Your task to perform on an android device: Go to battery settings Image 0: 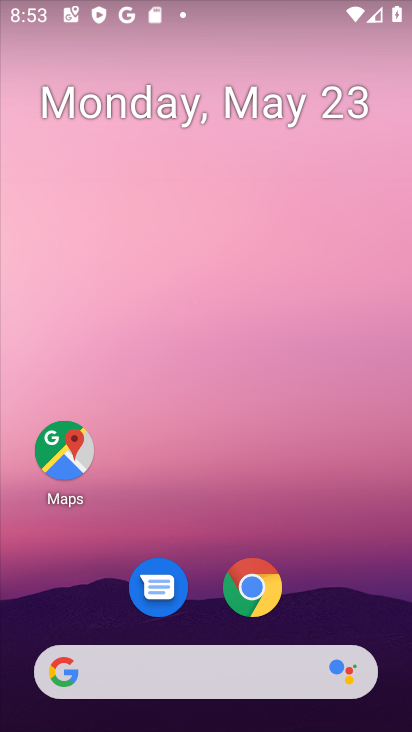
Step 0: drag from (204, 504) to (249, 41)
Your task to perform on an android device: Go to battery settings Image 1: 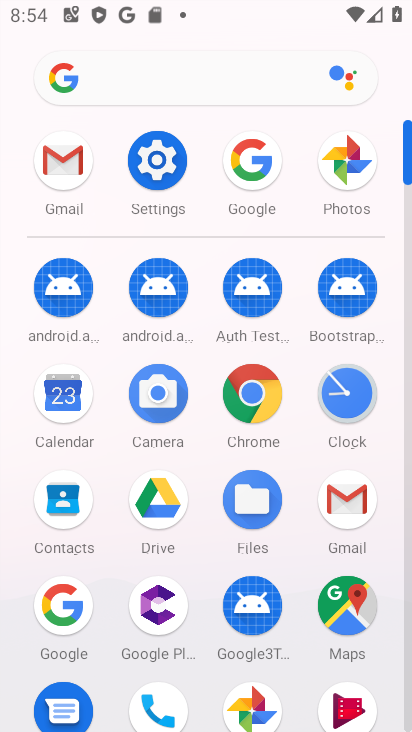
Step 1: click (161, 143)
Your task to perform on an android device: Go to battery settings Image 2: 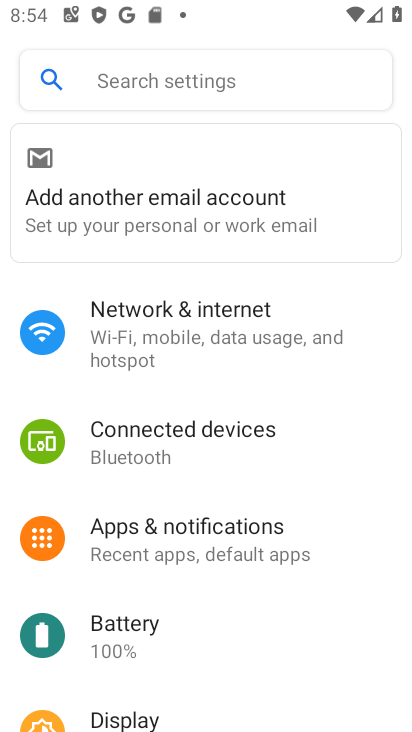
Step 2: click (150, 615)
Your task to perform on an android device: Go to battery settings Image 3: 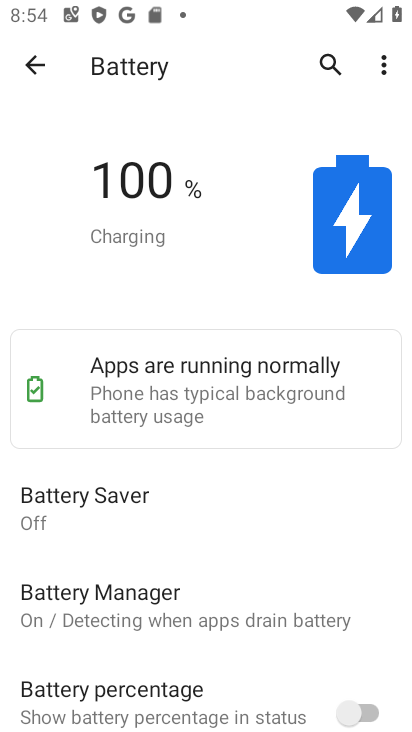
Step 3: task complete